Your task to perform on an android device: Open Youtube and go to "Your channel" Image 0: 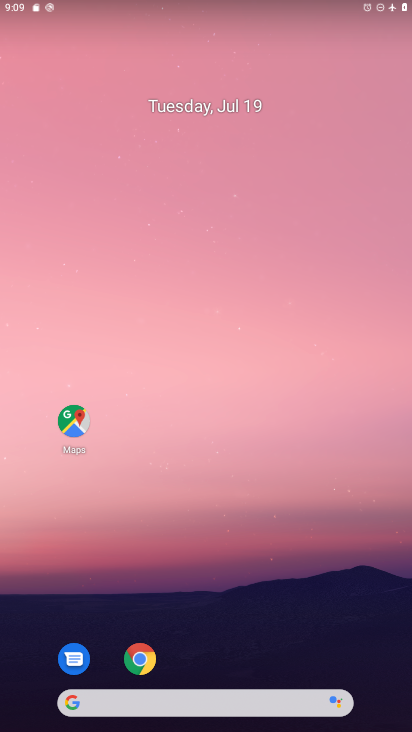
Step 0: drag from (257, 661) to (283, 292)
Your task to perform on an android device: Open Youtube and go to "Your channel" Image 1: 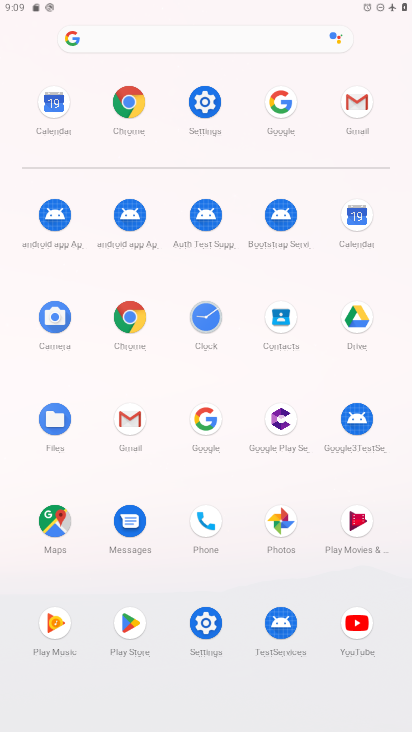
Step 1: click (352, 630)
Your task to perform on an android device: Open Youtube and go to "Your channel" Image 2: 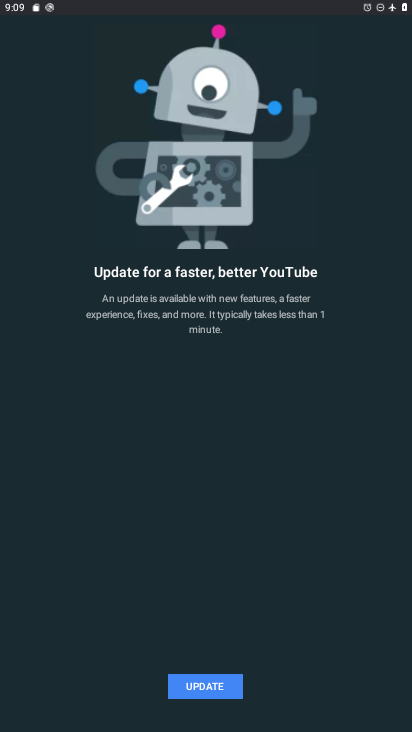
Step 2: task complete